Your task to perform on an android device: open device folders in google photos Image 0: 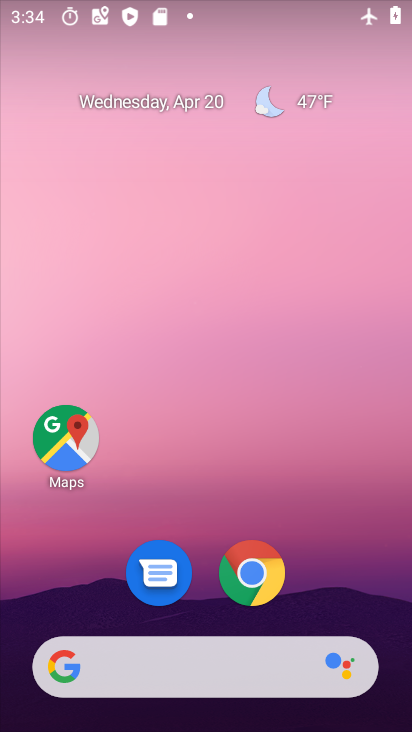
Step 0: drag from (209, 724) to (204, 99)
Your task to perform on an android device: open device folders in google photos Image 1: 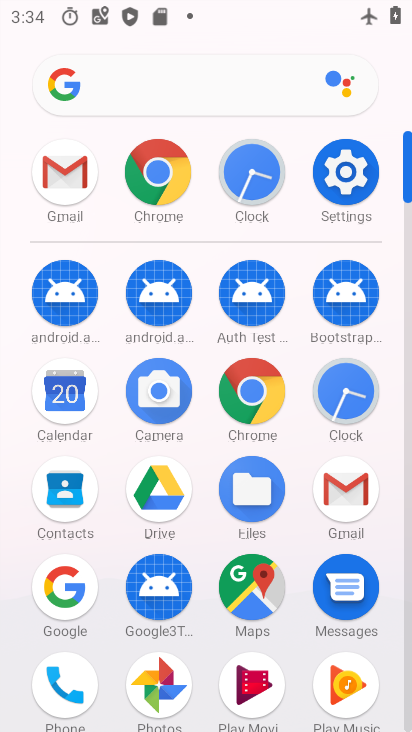
Step 1: click (158, 684)
Your task to perform on an android device: open device folders in google photos Image 2: 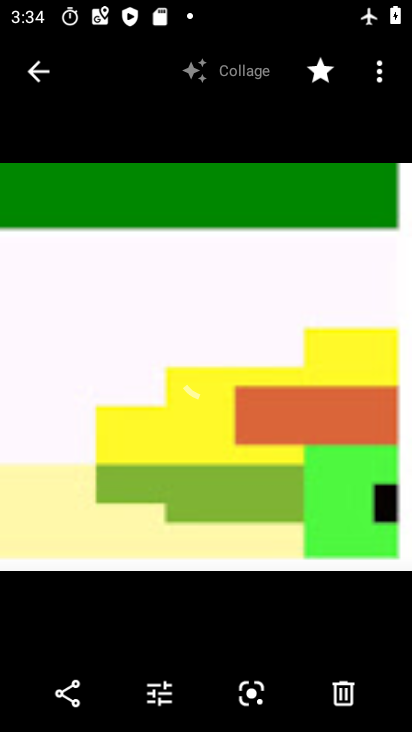
Step 2: click (38, 76)
Your task to perform on an android device: open device folders in google photos Image 3: 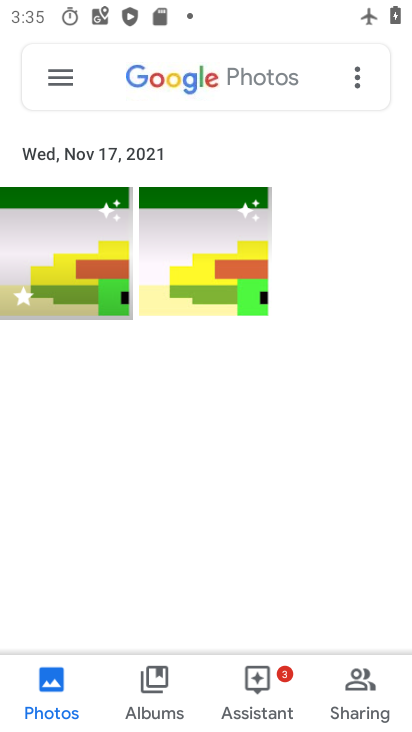
Step 3: click (54, 76)
Your task to perform on an android device: open device folders in google photos Image 4: 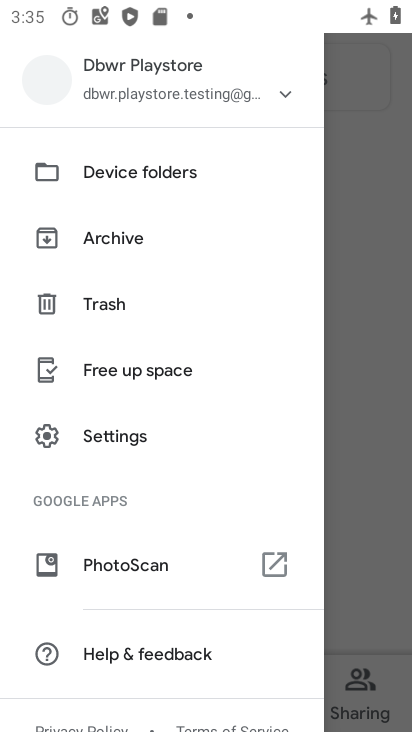
Step 4: click (97, 169)
Your task to perform on an android device: open device folders in google photos Image 5: 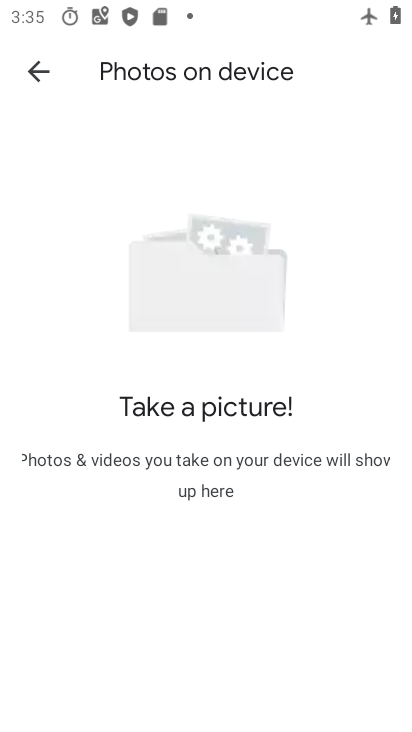
Step 5: task complete